Your task to perform on an android device: Set the phone to "Do not disturb". Image 0: 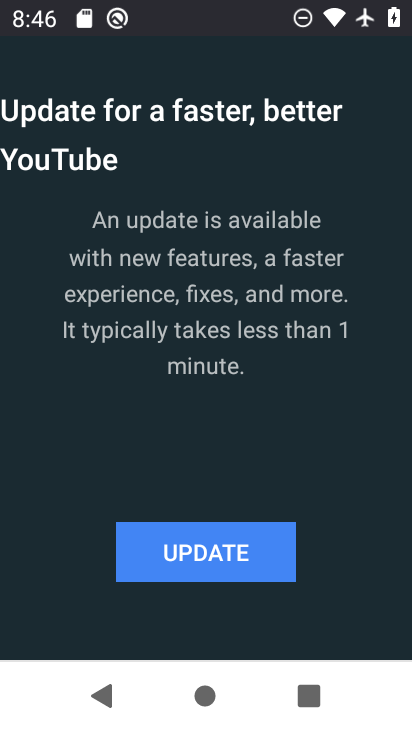
Step 0: press home button
Your task to perform on an android device: Set the phone to "Do not disturb". Image 1: 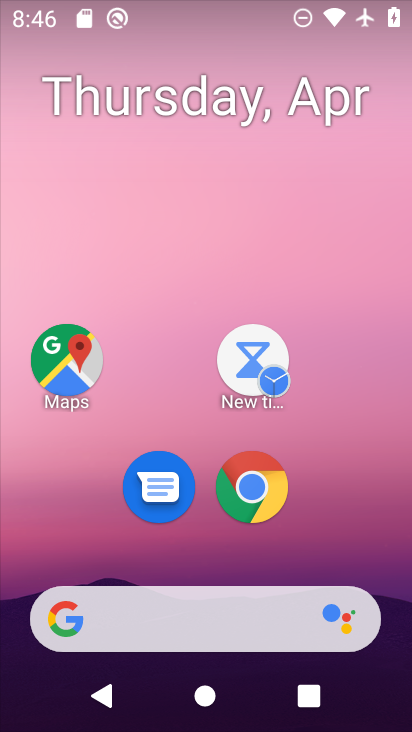
Step 1: drag from (339, 474) to (335, 39)
Your task to perform on an android device: Set the phone to "Do not disturb". Image 2: 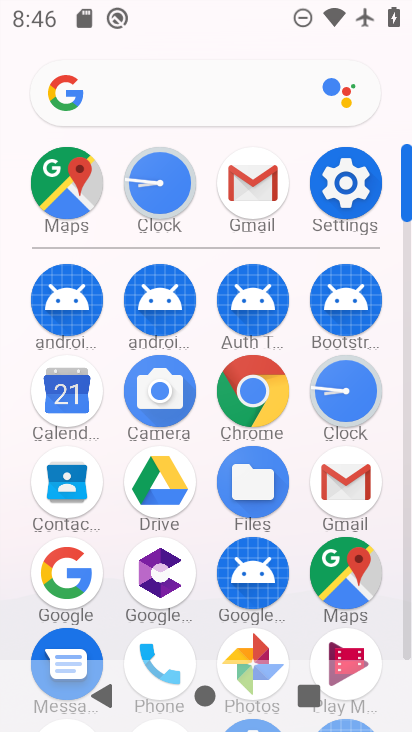
Step 2: click (344, 184)
Your task to perform on an android device: Set the phone to "Do not disturb". Image 3: 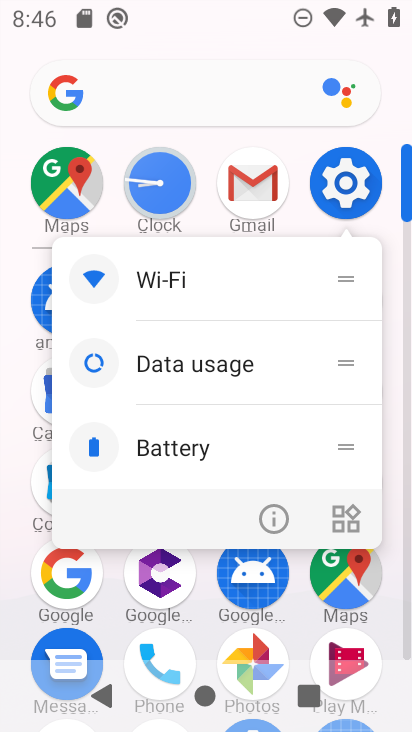
Step 3: click (344, 184)
Your task to perform on an android device: Set the phone to "Do not disturb". Image 4: 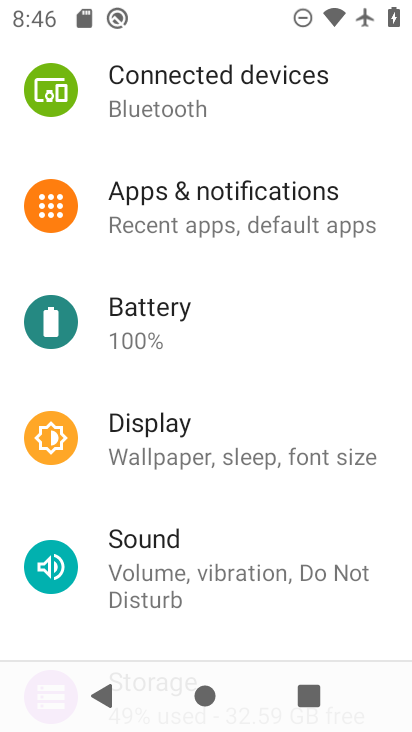
Step 4: click (212, 559)
Your task to perform on an android device: Set the phone to "Do not disturb". Image 5: 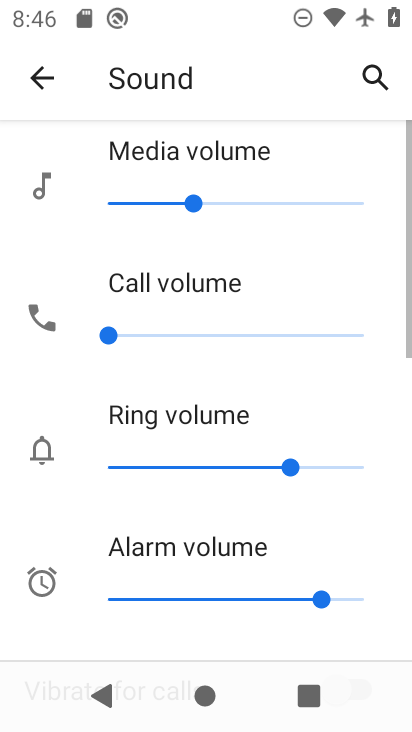
Step 5: task complete